Your task to perform on an android device: Clear the cart on newegg.com. Add razer blackwidow to the cart on newegg.com Image 0: 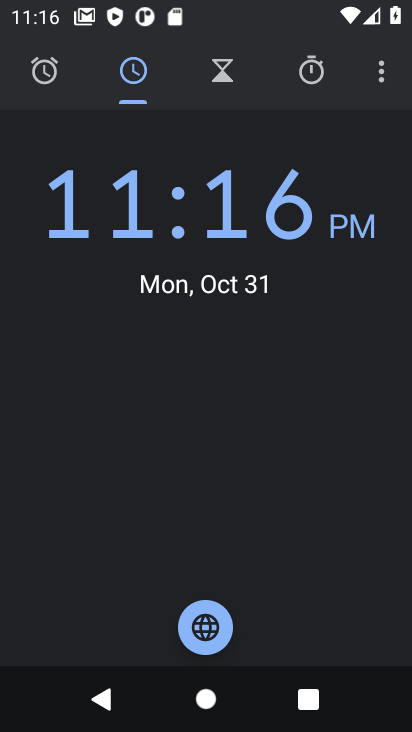
Step 0: press home button
Your task to perform on an android device: Clear the cart on newegg.com. Add razer blackwidow to the cart on newegg.com Image 1: 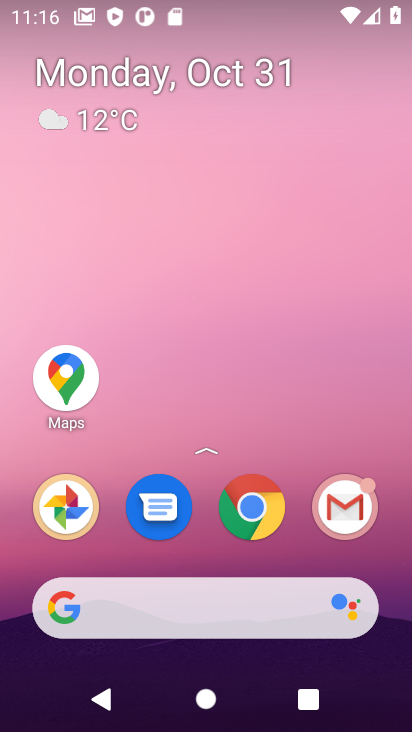
Step 1: drag from (312, 568) to (324, 68)
Your task to perform on an android device: Clear the cart on newegg.com. Add razer blackwidow to the cart on newegg.com Image 2: 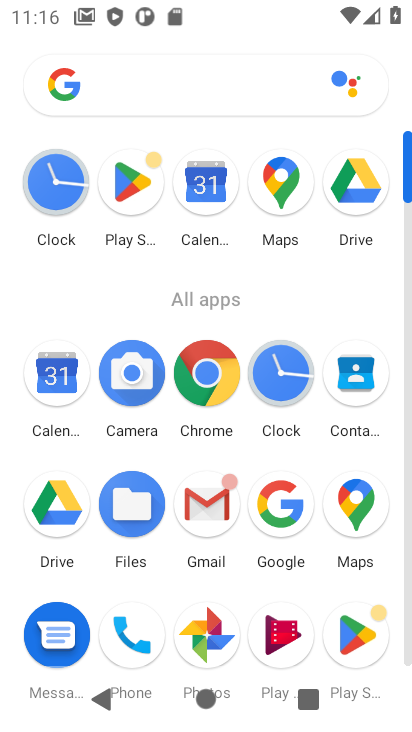
Step 2: click (206, 372)
Your task to perform on an android device: Clear the cart on newegg.com. Add razer blackwidow to the cart on newegg.com Image 3: 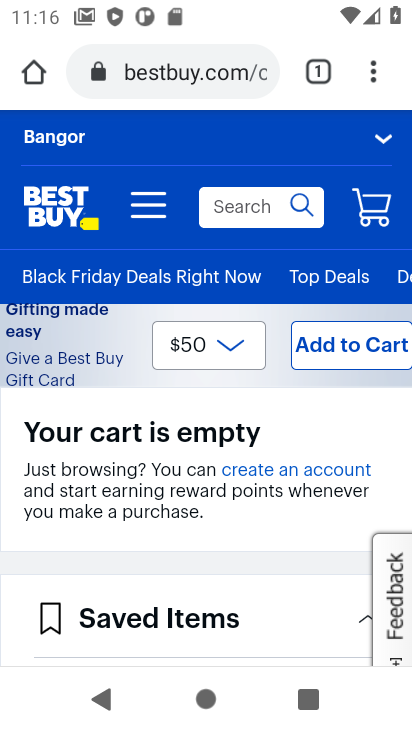
Step 3: click (243, 75)
Your task to perform on an android device: Clear the cart on newegg.com. Add razer blackwidow to the cart on newegg.com Image 4: 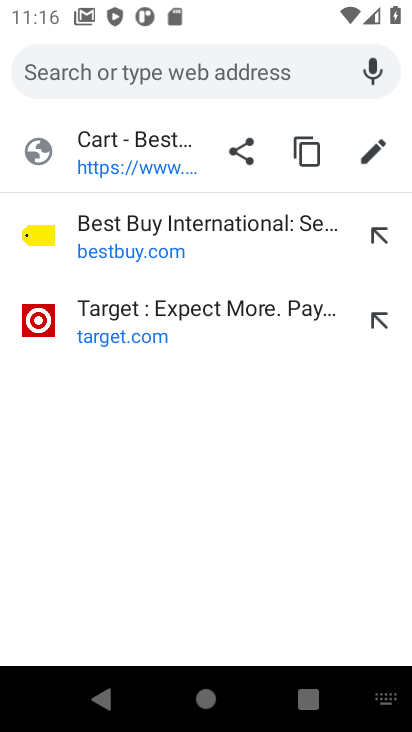
Step 4: type "newegg.com"
Your task to perform on an android device: Clear the cart on newegg.com. Add razer blackwidow to the cart on newegg.com Image 5: 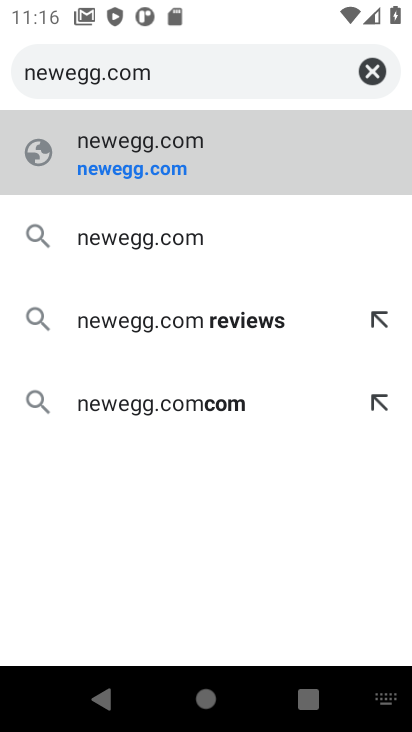
Step 5: press enter
Your task to perform on an android device: Clear the cart on newegg.com. Add razer blackwidow to the cart on newegg.com Image 6: 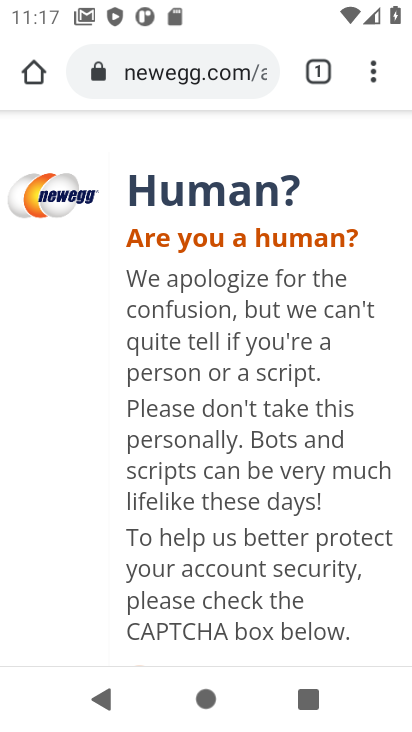
Step 6: drag from (210, 518) to (250, 112)
Your task to perform on an android device: Clear the cart on newegg.com. Add razer blackwidow to the cart on newegg.com Image 7: 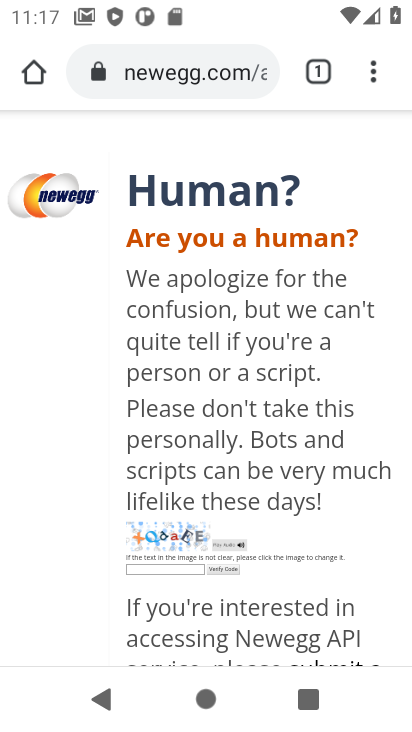
Step 7: drag from (231, 364) to (255, 119)
Your task to perform on an android device: Clear the cart on newegg.com. Add razer blackwidow to the cart on newegg.com Image 8: 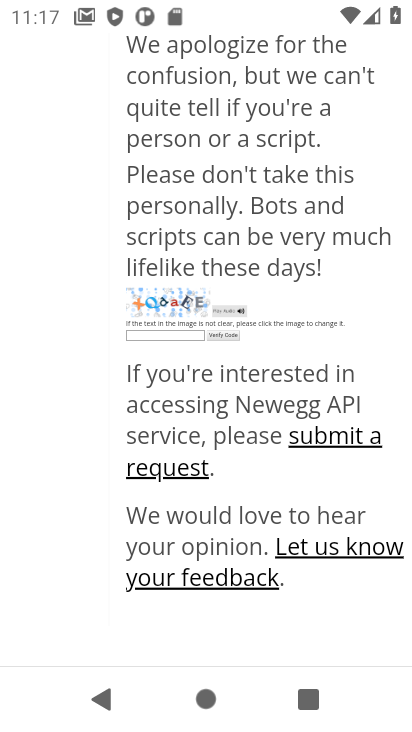
Step 8: click (186, 336)
Your task to perform on an android device: Clear the cart on newegg.com. Add razer blackwidow to the cart on newegg.com Image 9: 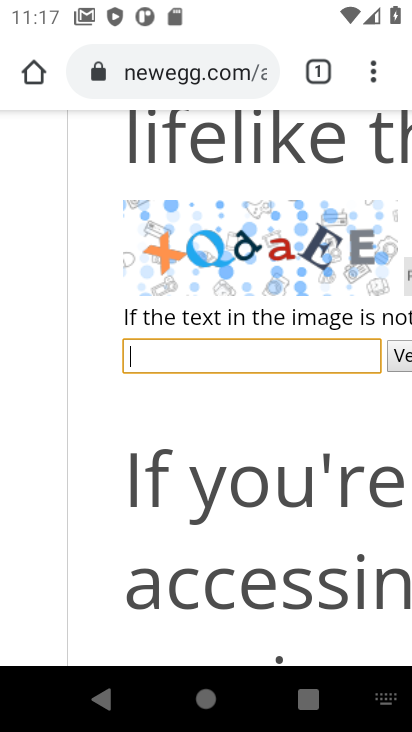
Step 9: type "XQdaEE"
Your task to perform on an android device: Clear the cart on newegg.com. Add razer blackwidow to the cart on newegg.com Image 10: 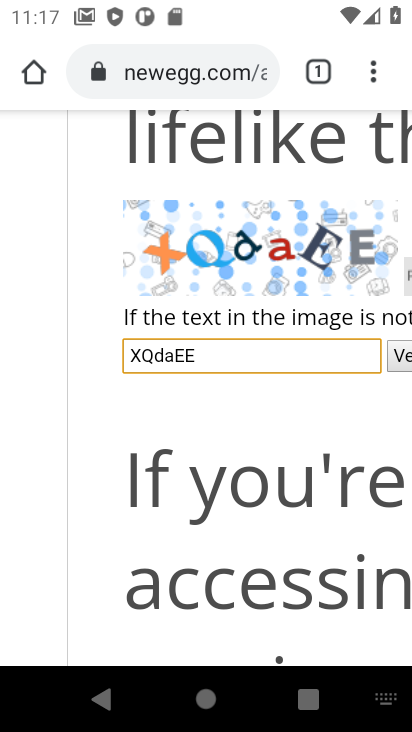
Step 10: click (404, 353)
Your task to perform on an android device: Clear the cart on newegg.com. Add razer blackwidow to the cart on newegg.com Image 11: 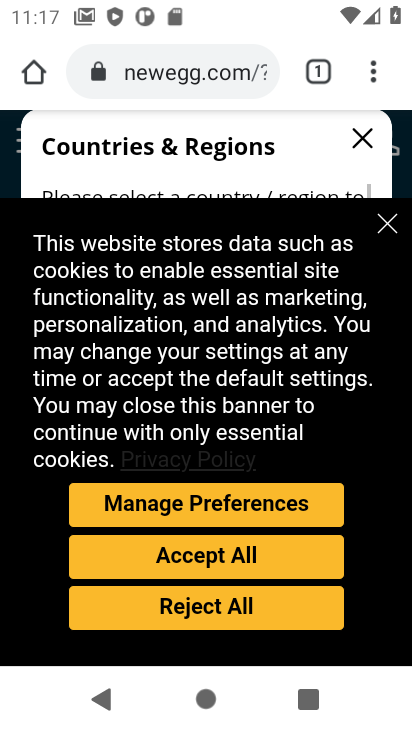
Step 11: click (396, 221)
Your task to perform on an android device: Clear the cart on newegg.com. Add razer blackwidow to the cart on newegg.com Image 12: 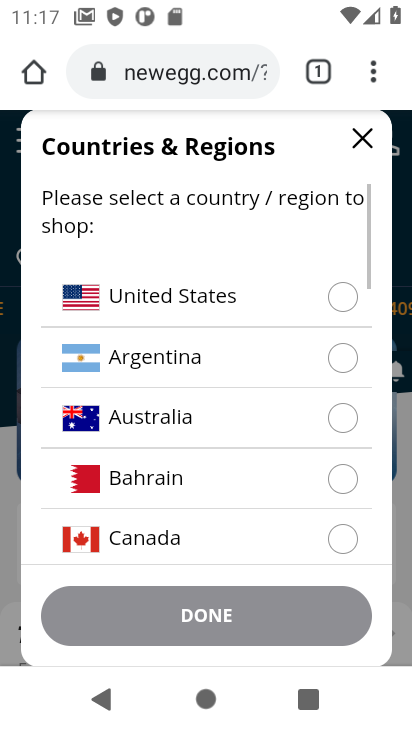
Step 12: click (364, 139)
Your task to perform on an android device: Clear the cart on newegg.com. Add razer blackwidow to the cart on newegg.com Image 13: 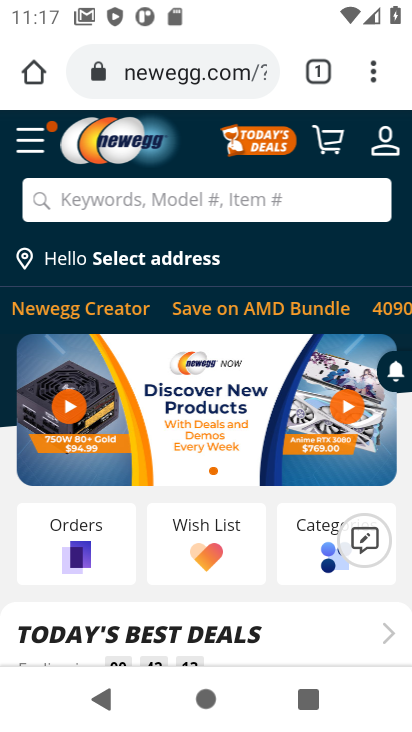
Step 13: click (322, 152)
Your task to perform on an android device: Clear the cart on newegg.com. Add razer blackwidow to the cart on newegg.com Image 14: 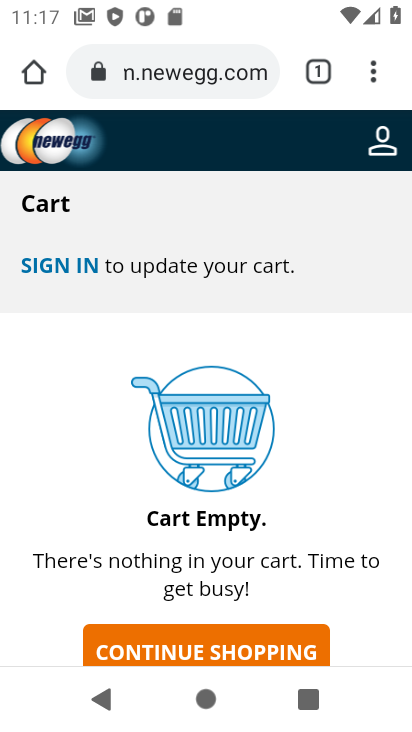
Step 14: click (245, 643)
Your task to perform on an android device: Clear the cart on newegg.com. Add razer blackwidow to the cart on newegg.com Image 15: 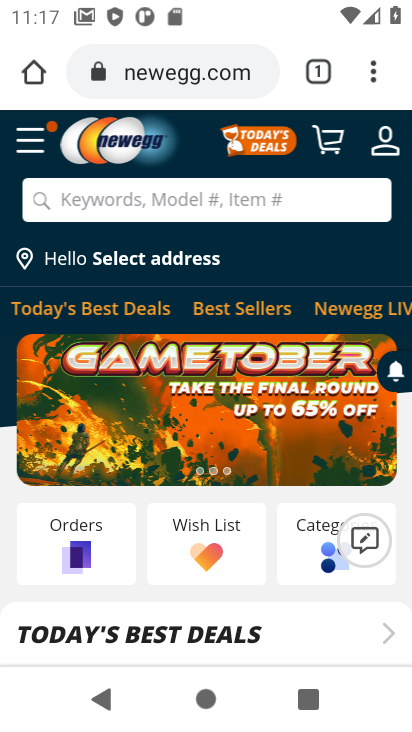
Step 15: click (103, 212)
Your task to perform on an android device: Clear the cart on newegg.com. Add razer blackwidow to the cart on newegg.com Image 16: 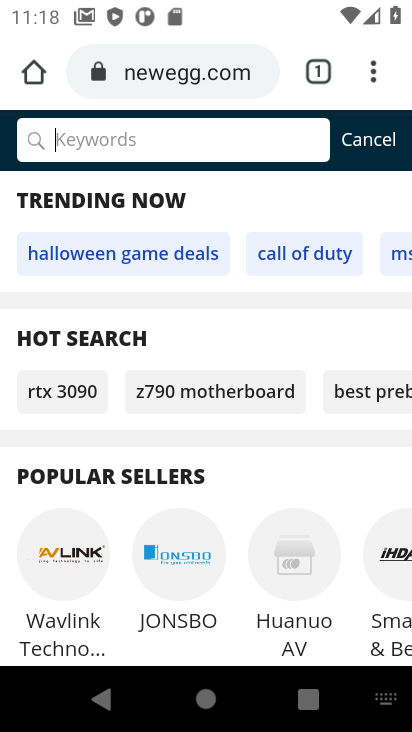
Step 16: type "newegg.com"
Your task to perform on an android device: Clear the cart on newegg.com. Add razer blackwidow to the cart on newegg.com Image 17: 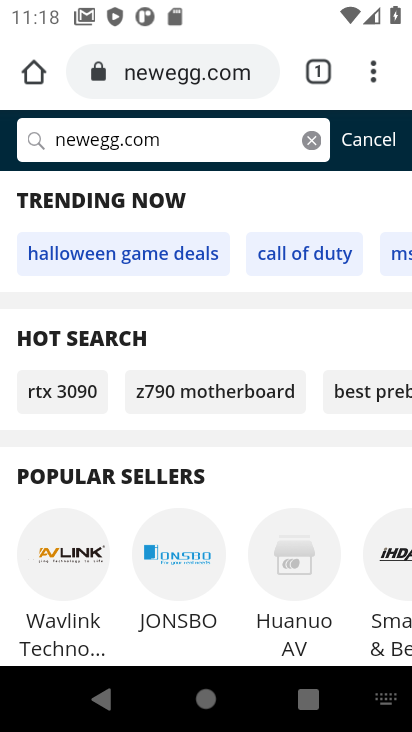
Step 17: press enter
Your task to perform on an android device: Clear the cart on newegg.com. Add razer blackwidow to the cart on newegg.com Image 18: 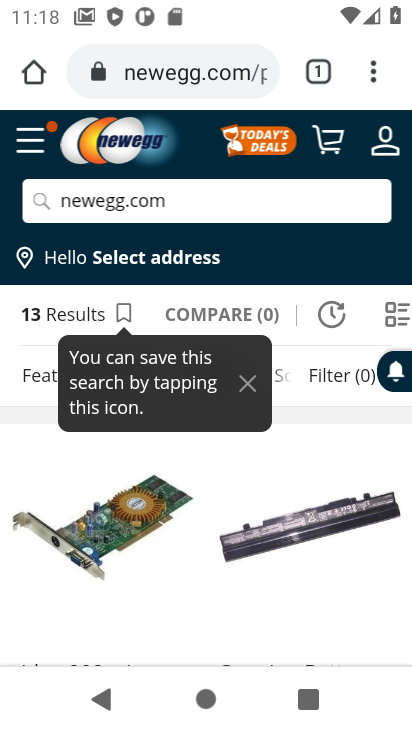
Step 18: task complete